Your task to perform on an android device: turn off location Image 0: 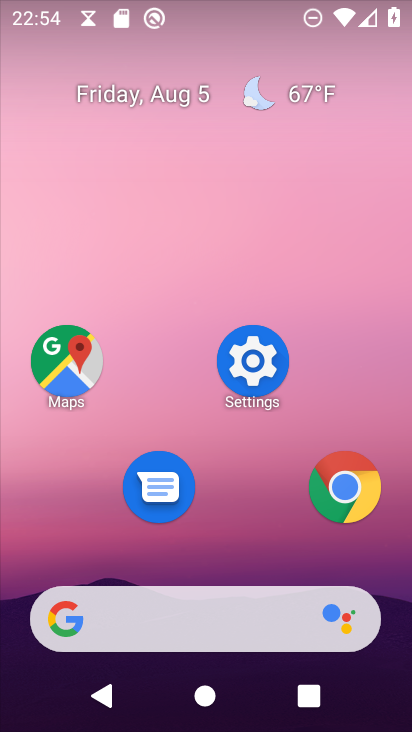
Step 0: press home button
Your task to perform on an android device: turn off location Image 1: 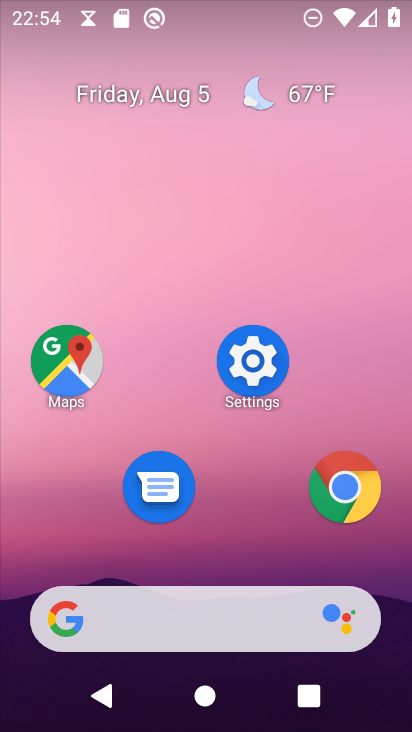
Step 1: drag from (182, 616) to (270, 152)
Your task to perform on an android device: turn off location Image 2: 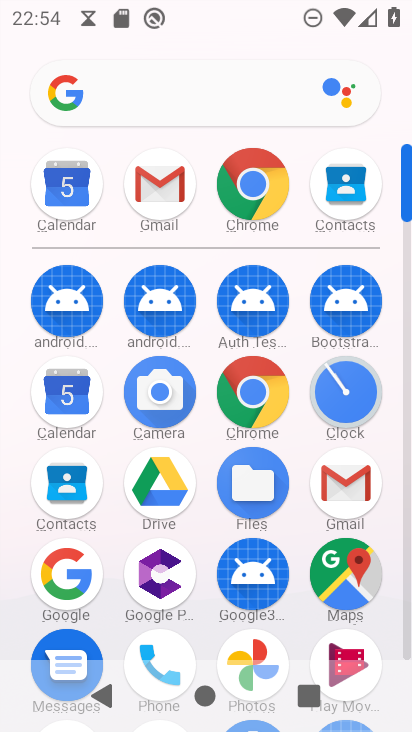
Step 2: drag from (202, 559) to (278, 194)
Your task to perform on an android device: turn off location Image 3: 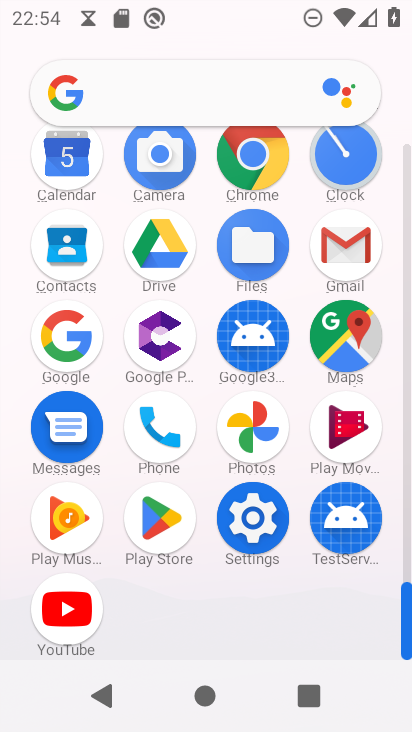
Step 3: click (246, 521)
Your task to perform on an android device: turn off location Image 4: 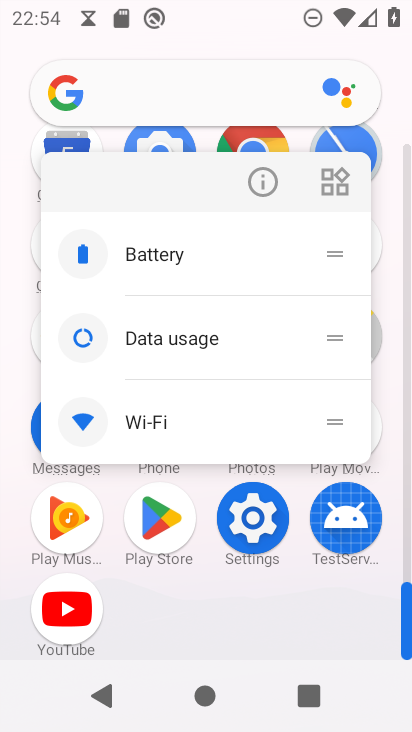
Step 4: click (251, 522)
Your task to perform on an android device: turn off location Image 5: 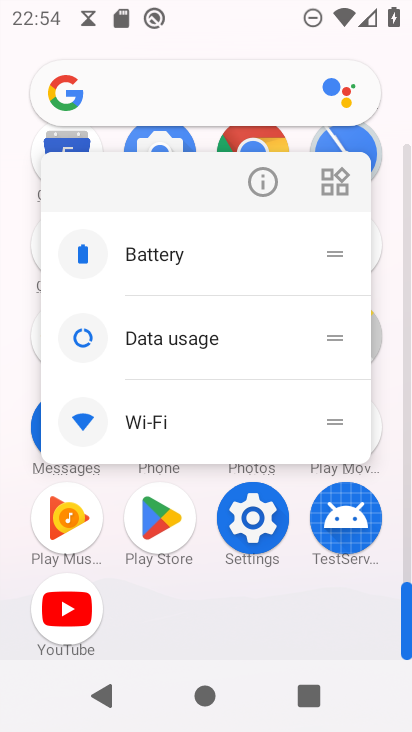
Step 5: click (251, 521)
Your task to perform on an android device: turn off location Image 6: 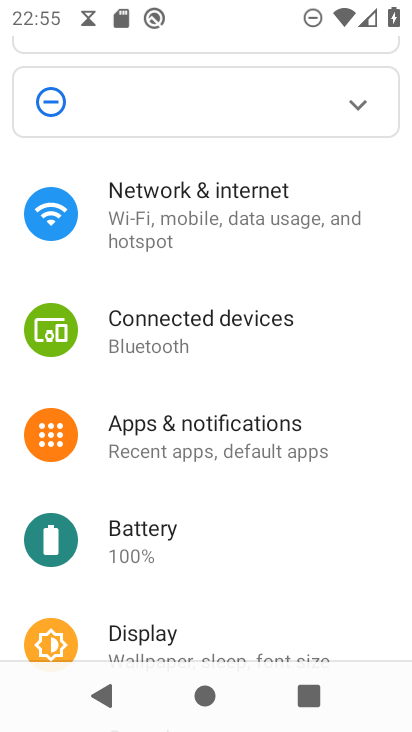
Step 6: drag from (271, 590) to (364, 171)
Your task to perform on an android device: turn off location Image 7: 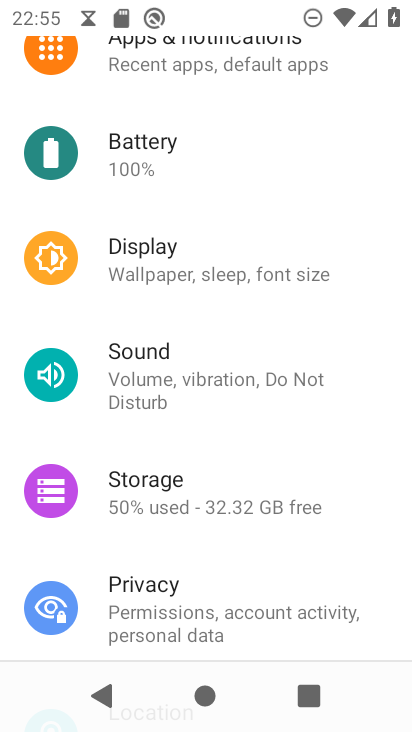
Step 7: drag from (249, 570) to (325, 141)
Your task to perform on an android device: turn off location Image 8: 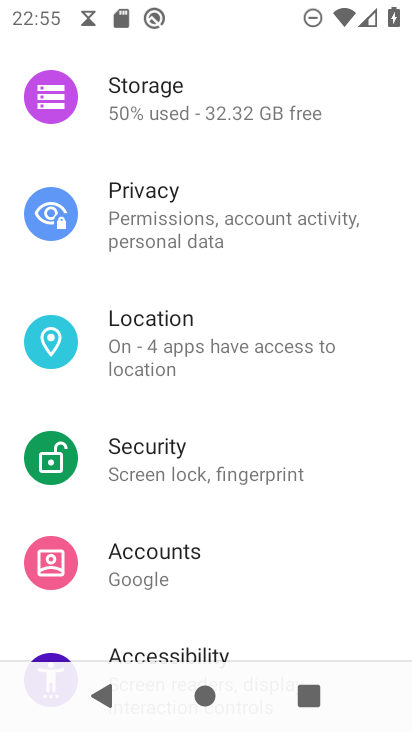
Step 8: drag from (217, 599) to (284, 171)
Your task to perform on an android device: turn off location Image 9: 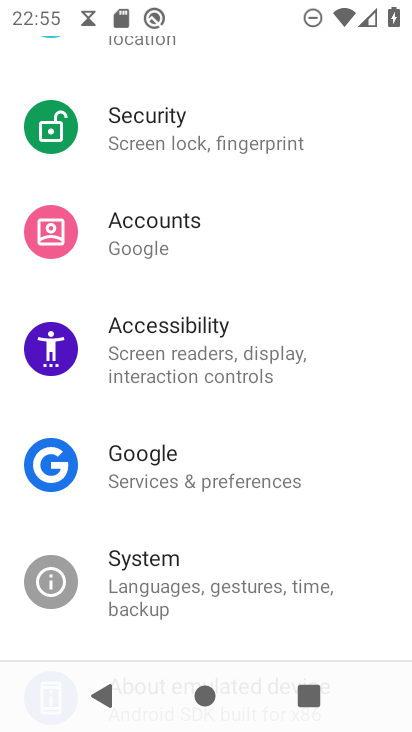
Step 9: drag from (294, 218) to (298, 617)
Your task to perform on an android device: turn off location Image 10: 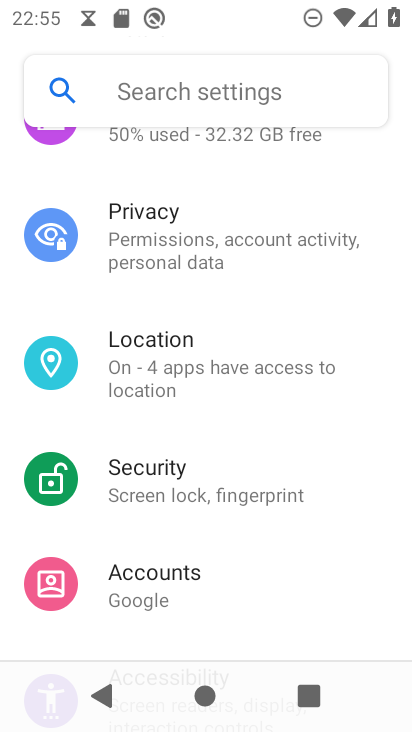
Step 10: click (153, 359)
Your task to perform on an android device: turn off location Image 11: 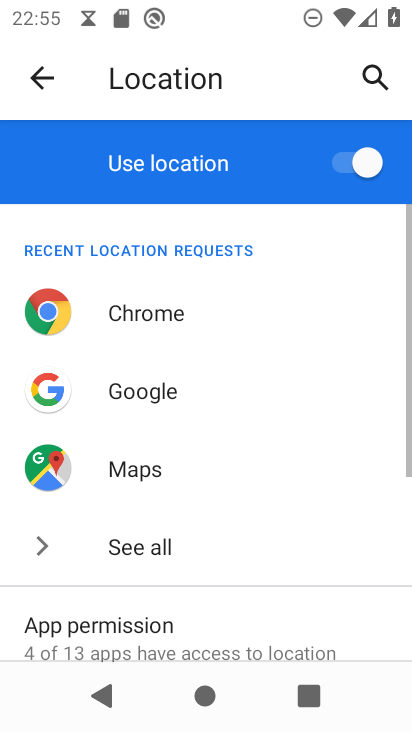
Step 11: click (350, 163)
Your task to perform on an android device: turn off location Image 12: 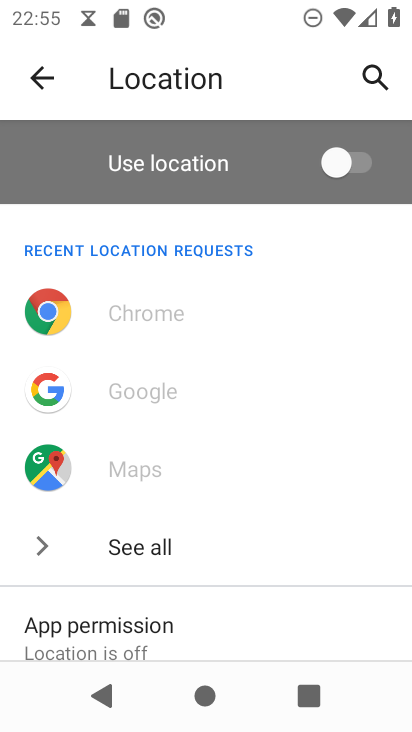
Step 12: task complete